Your task to perform on an android device: Open Chrome and go to the settings page Image 0: 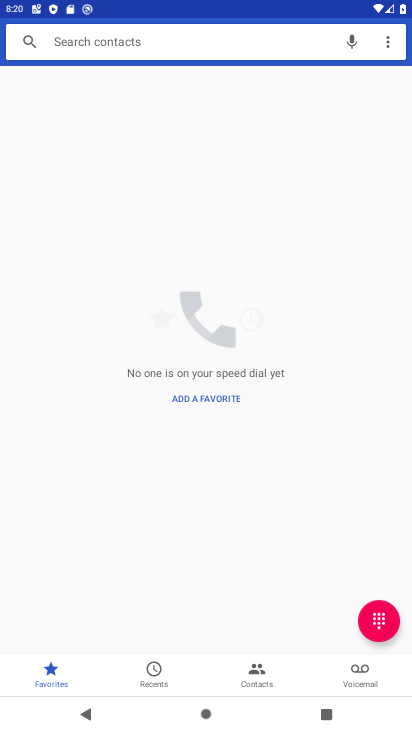
Step 0: press home button
Your task to perform on an android device: Open Chrome and go to the settings page Image 1: 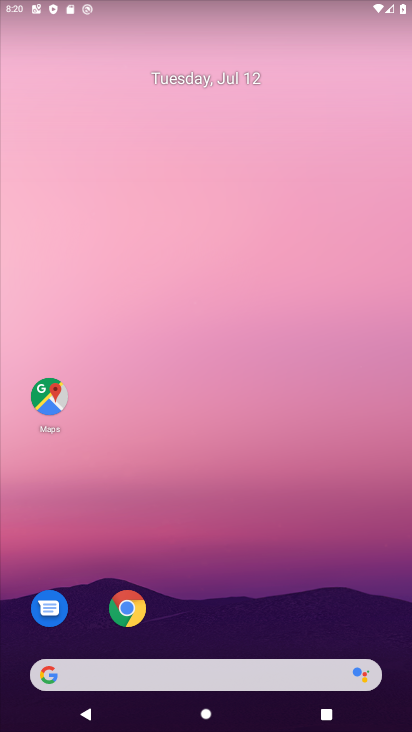
Step 1: click (137, 606)
Your task to perform on an android device: Open Chrome and go to the settings page Image 2: 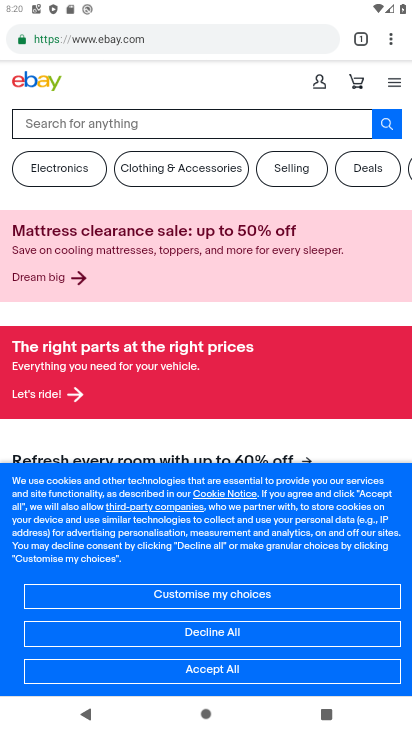
Step 2: click (379, 35)
Your task to perform on an android device: Open Chrome and go to the settings page Image 3: 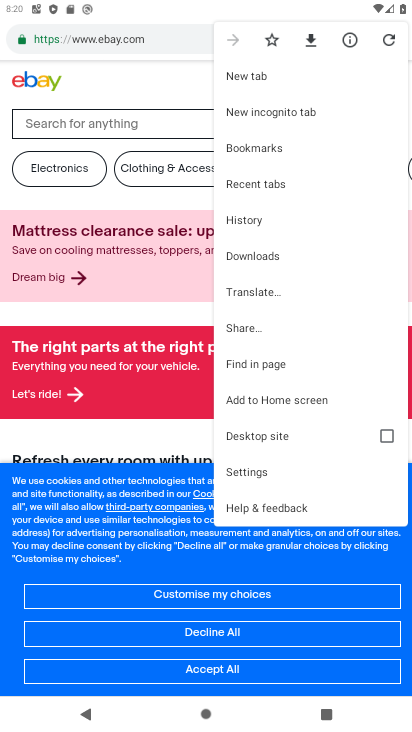
Step 3: click (312, 478)
Your task to perform on an android device: Open Chrome and go to the settings page Image 4: 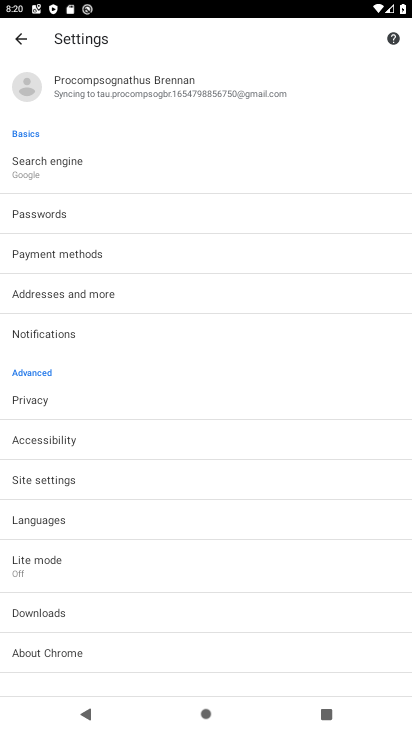
Step 4: task complete